Your task to perform on an android device: turn off sleep mode Image 0: 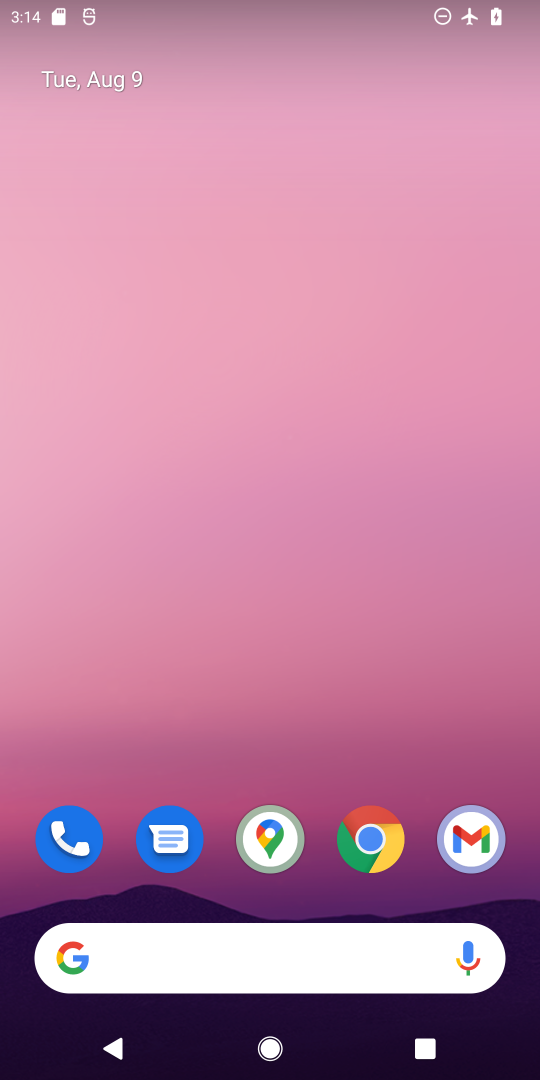
Step 0: drag from (325, 747) to (319, 75)
Your task to perform on an android device: turn off sleep mode Image 1: 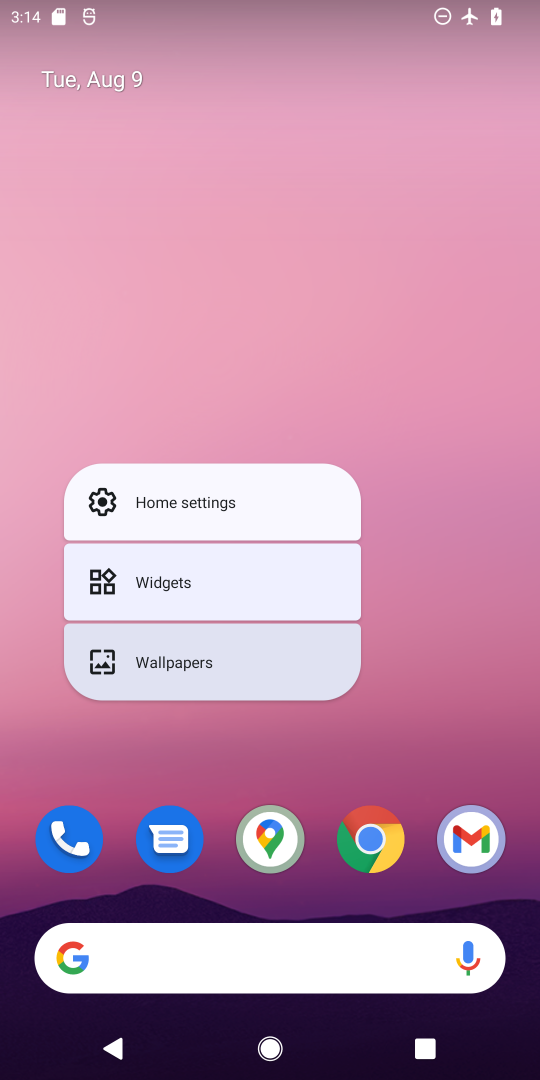
Step 1: drag from (473, 743) to (446, 41)
Your task to perform on an android device: turn off sleep mode Image 2: 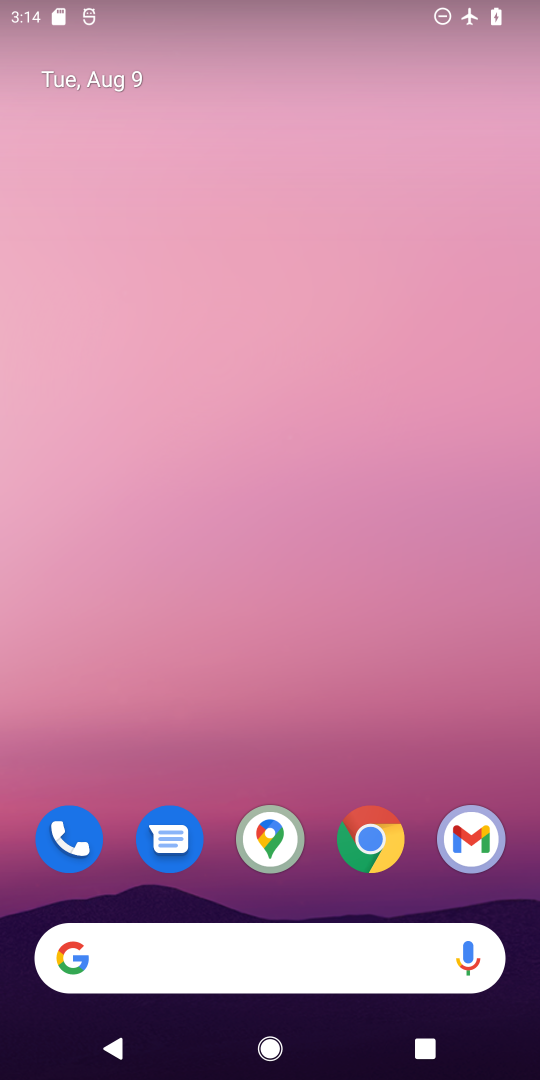
Step 2: drag from (218, 792) to (213, 45)
Your task to perform on an android device: turn off sleep mode Image 3: 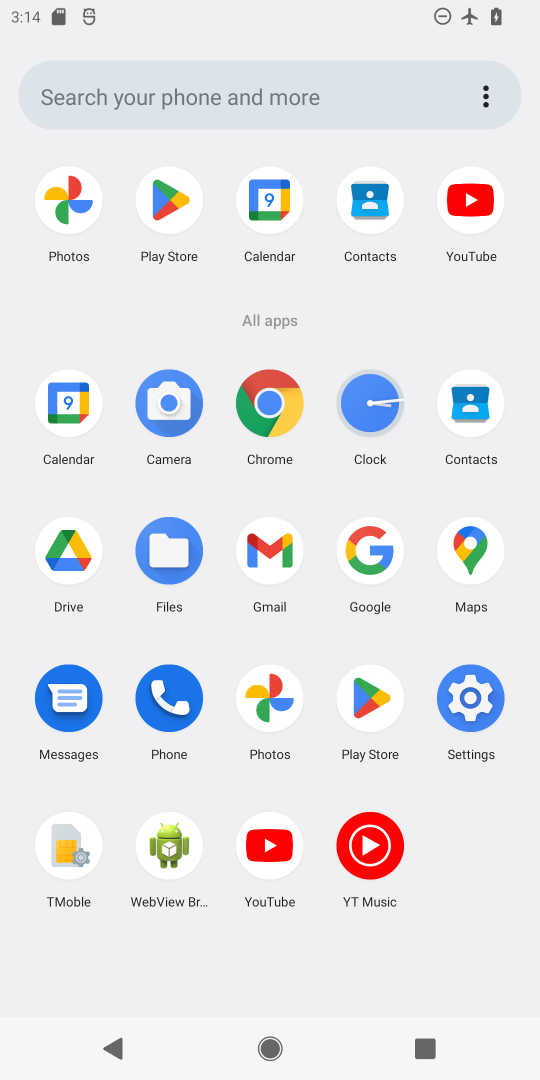
Step 3: click (486, 693)
Your task to perform on an android device: turn off sleep mode Image 4: 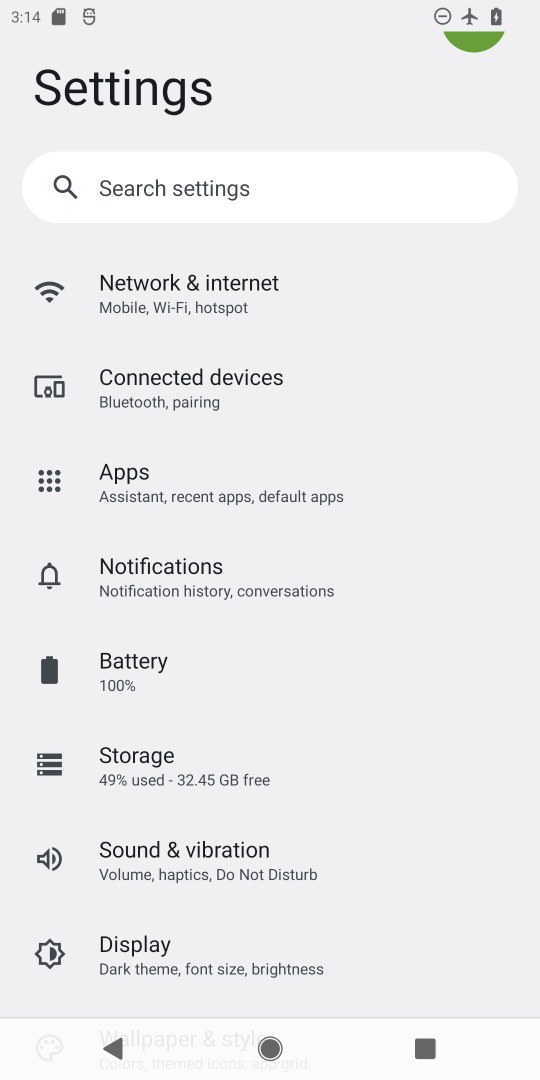
Step 4: click (161, 966)
Your task to perform on an android device: turn off sleep mode Image 5: 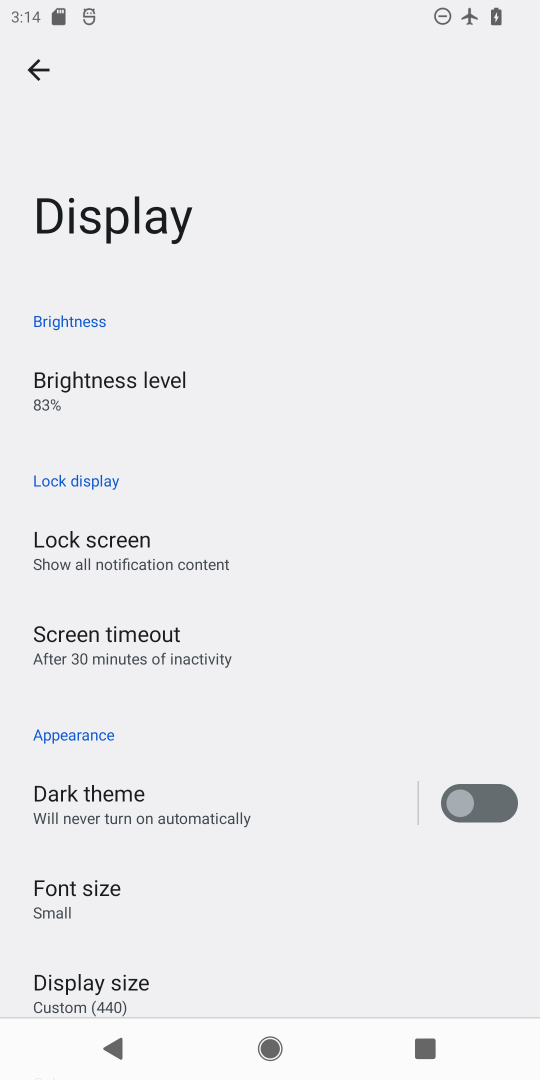
Step 5: task complete